Your task to perform on an android device: Search for hotels in Orlando Image 0: 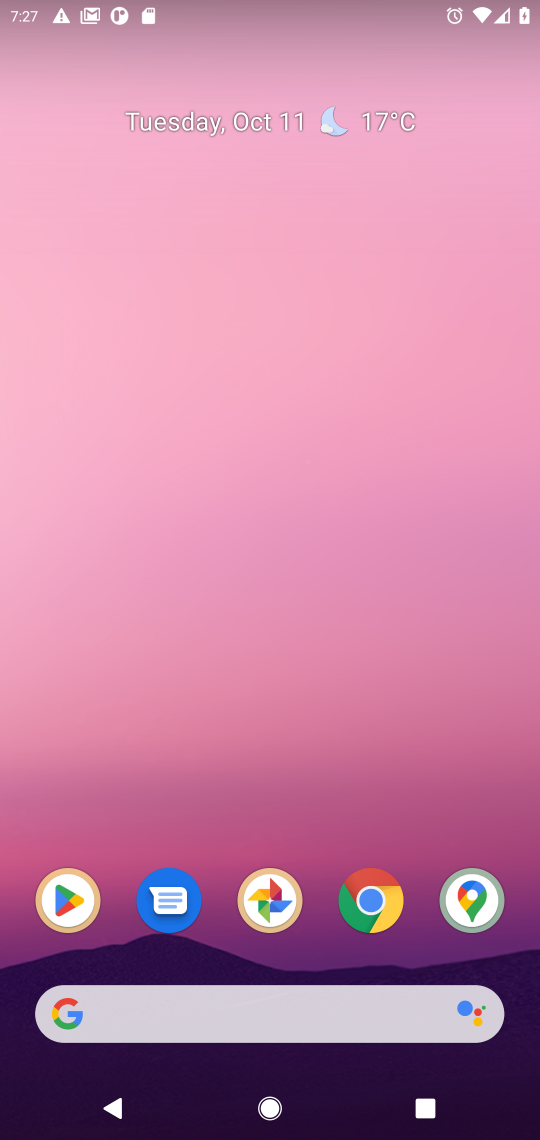
Step 0: click (372, 896)
Your task to perform on an android device: Search for hotels in Orlando Image 1: 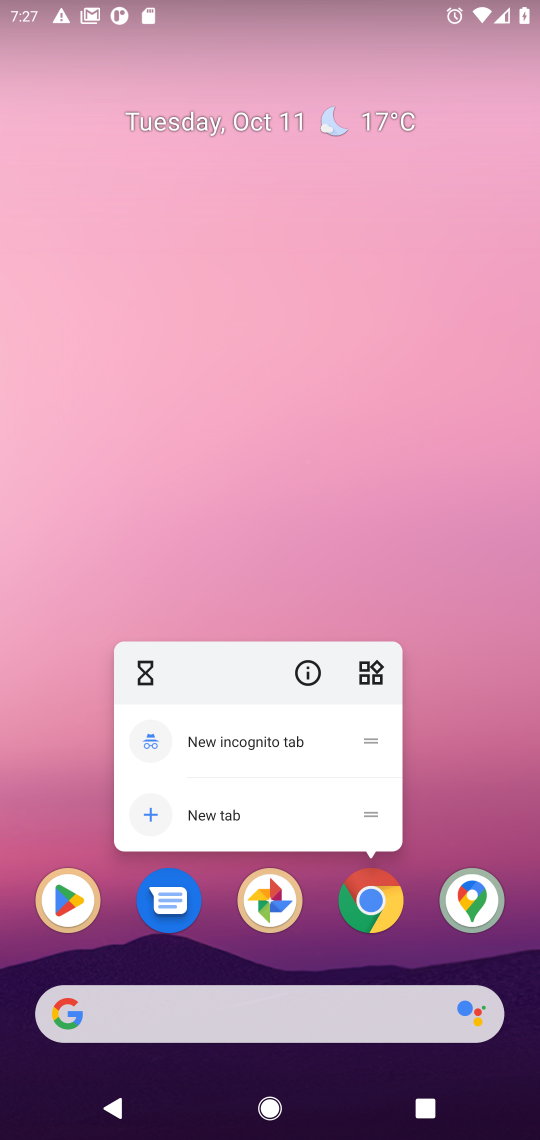
Step 1: click (372, 900)
Your task to perform on an android device: Search for hotels in Orlando Image 2: 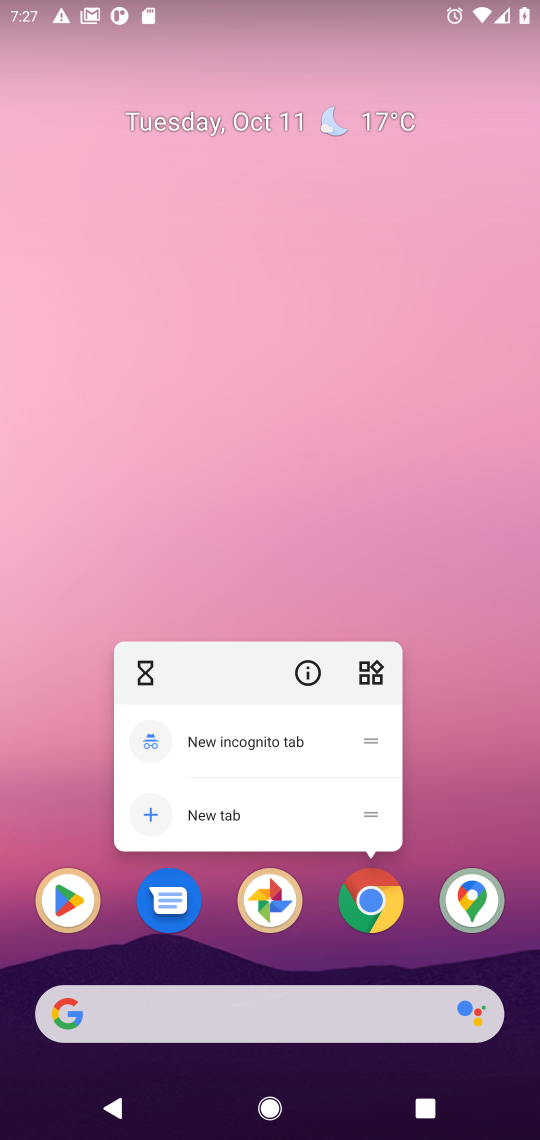
Step 2: click (374, 910)
Your task to perform on an android device: Search for hotels in Orlando Image 3: 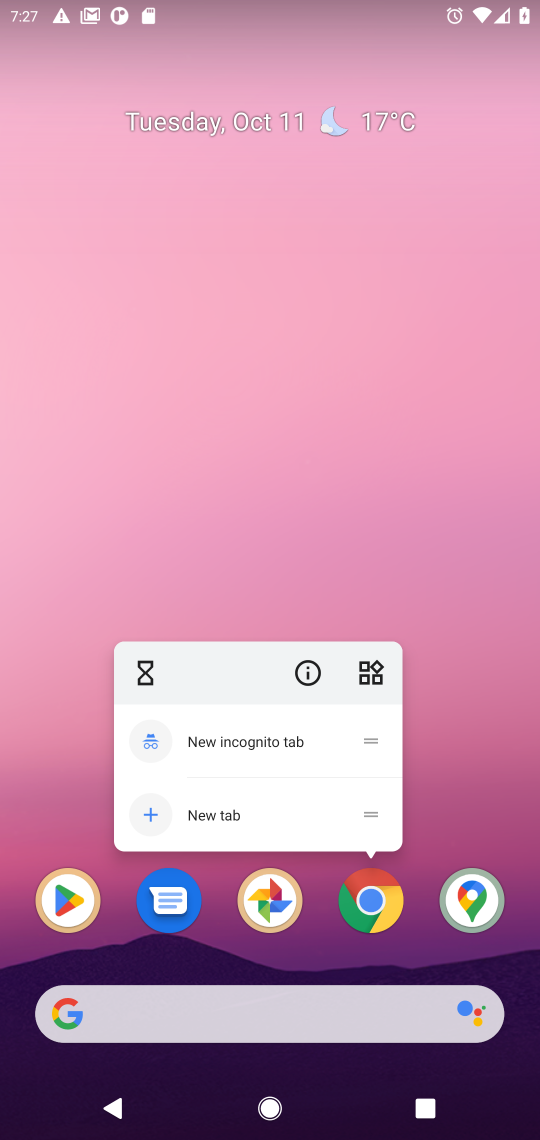
Step 3: click (374, 910)
Your task to perform on an android device: Search for hotels in Orlando Image 4: 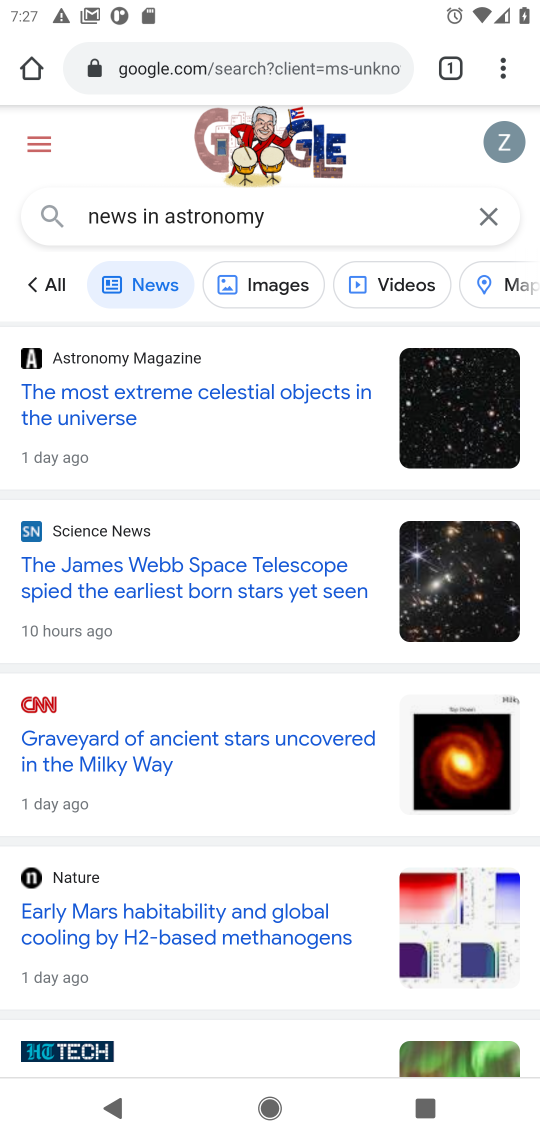
Step 4: click (232, 60)
Your task to perform on an android device: Search for hotels in Orlando Image 5: 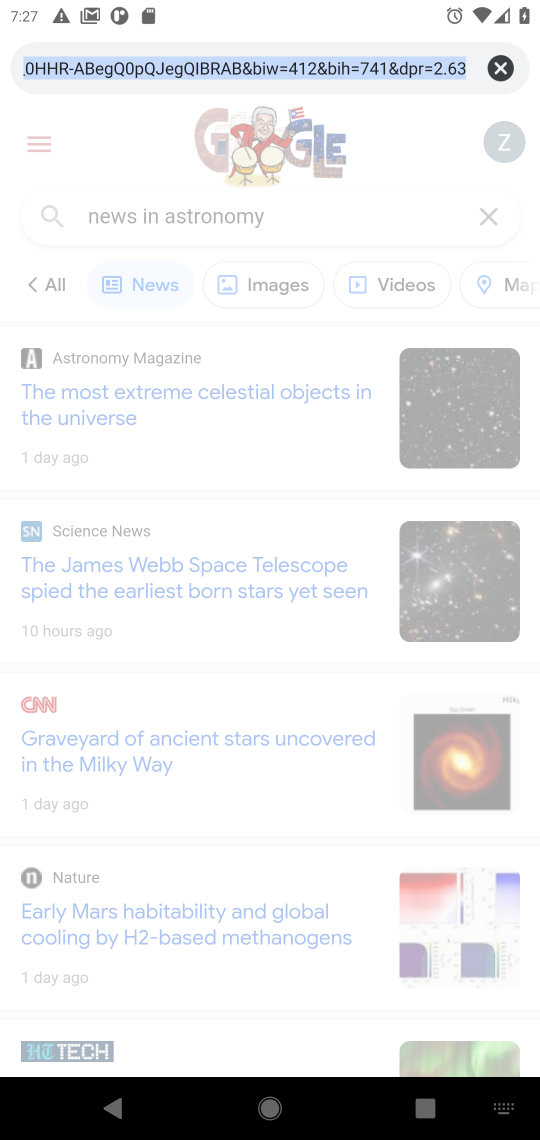
Step 5: click (495, 68)
Your task to perform on an android device: Search for hotels in Orlando Image 6: 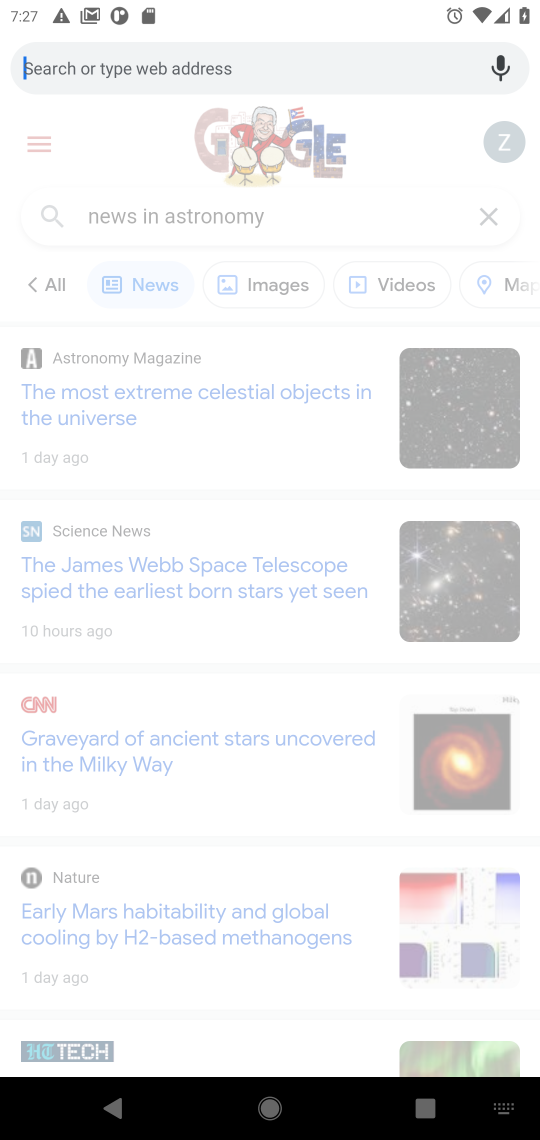
Step 6: type "hotels in Orlando"
Your task to perform on an android device: Search for hotels in Orlando Image 7: 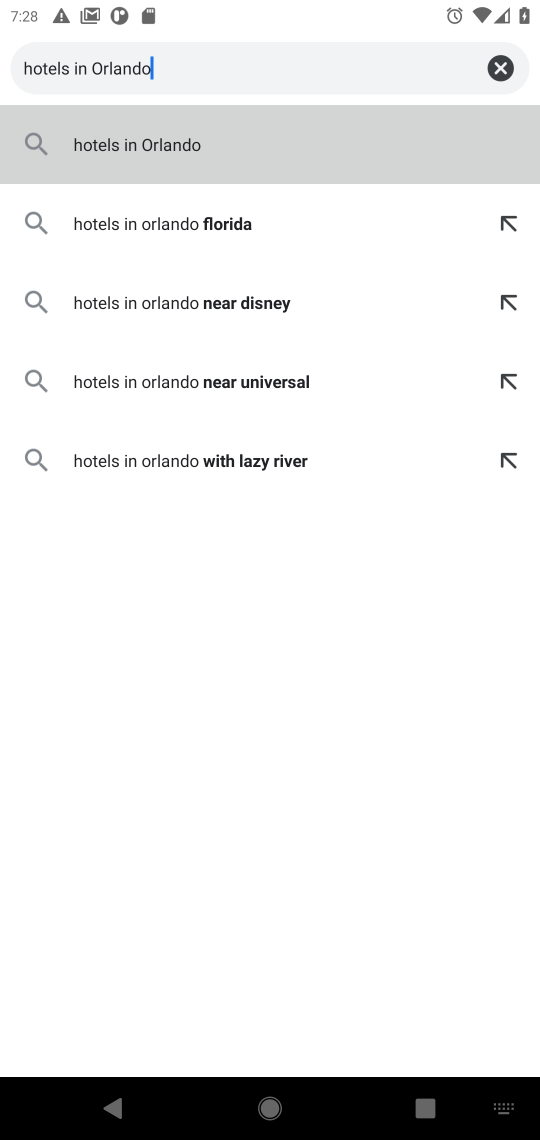
Step 7: press enter
Your task to perform on an android device: Search for hotels in Orlando Image 8: 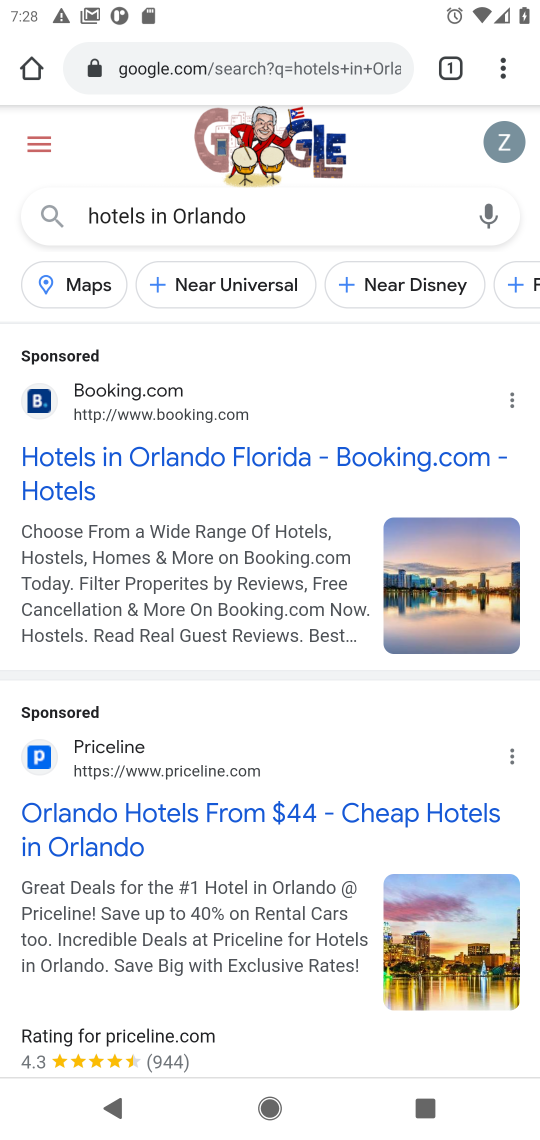
Step 8: drag from (93, 889) to (227, 266)
Your task to perform on an android device: Search for hotels in Orlando Image 9: 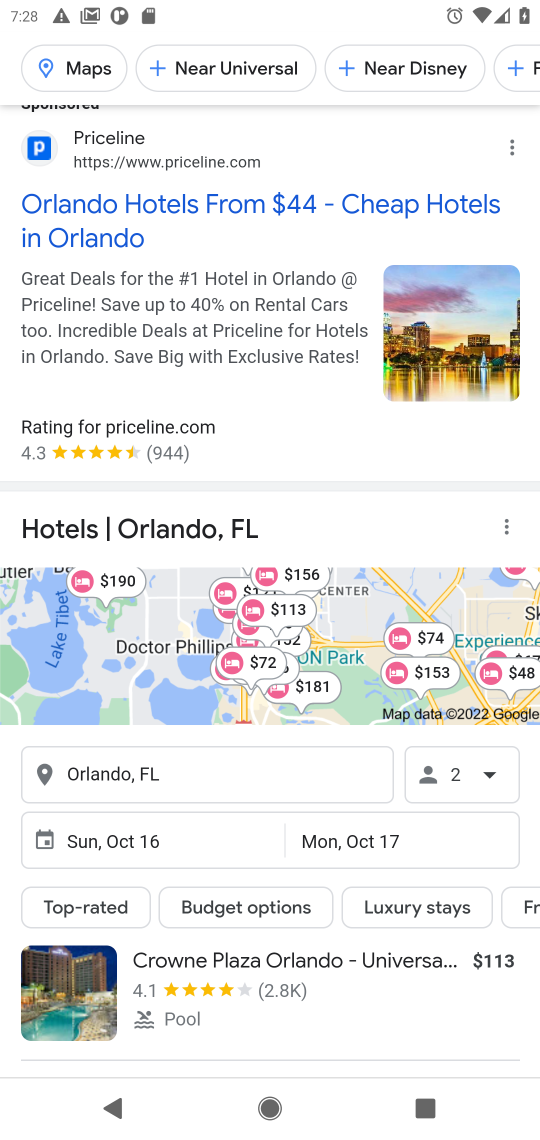
Step 9: drag from (141, 887) to (258, 94)
Your task to perform on an android device: Search for hotels in Orlando Image 10: 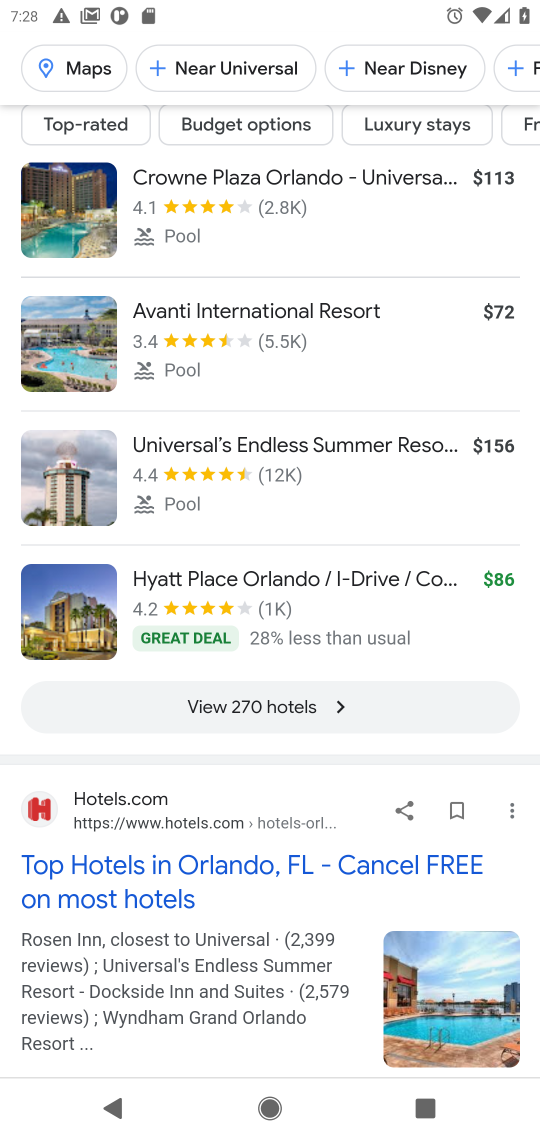
Step 10: click (262, 707)
Your task to perform on an android device: Search for hotels in Orlando Image 11: 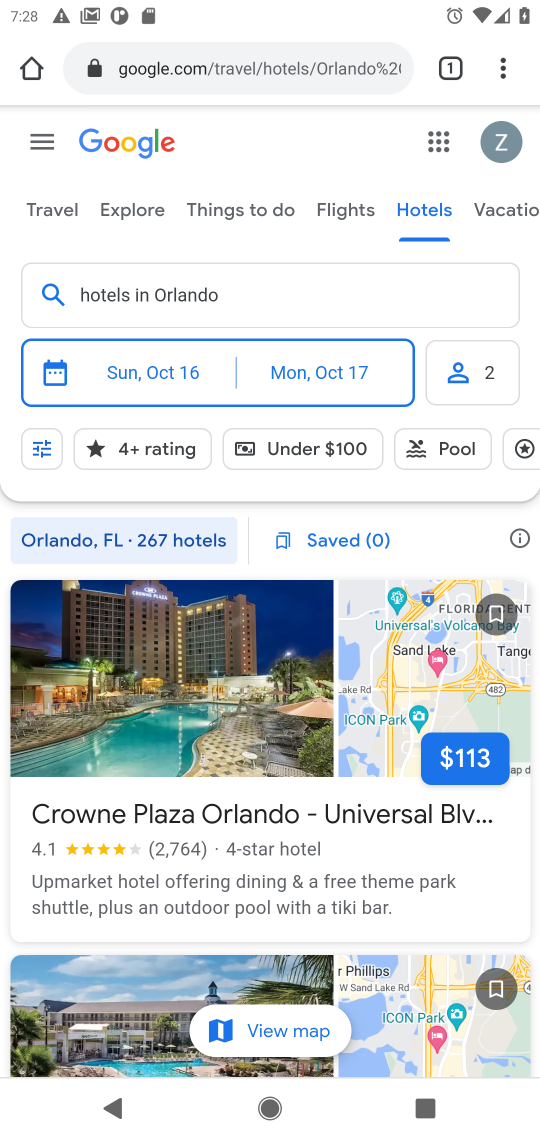
Step 11: task complete